Your task to perform on an android device: Open Google Chrome and open the bookmarks view Image 0: 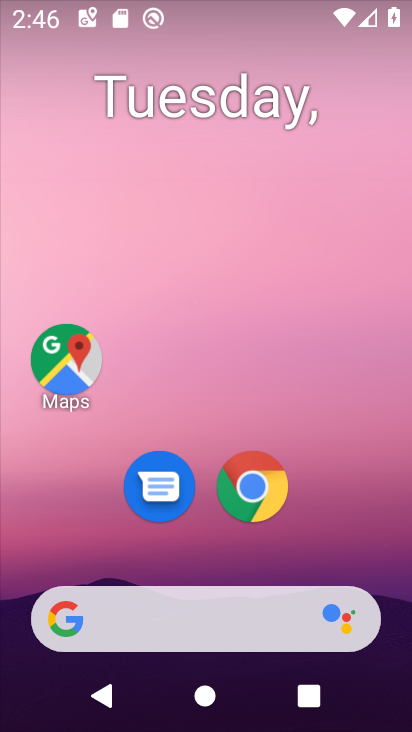
Step 0: press home button
Your task to perform on an android device: Open Google Chrome and open the bookmarks view Image 1: 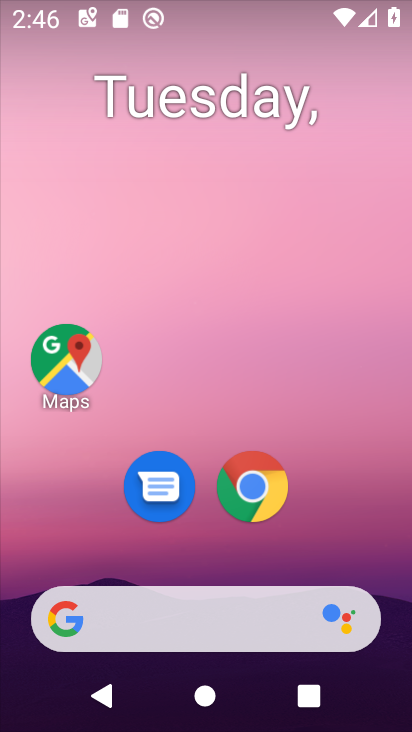
Step 1: drag from (209, 565) to (205, 109)
Your task to perform on an android device: Open Google Chrome and open the bookmarks view Image 2: 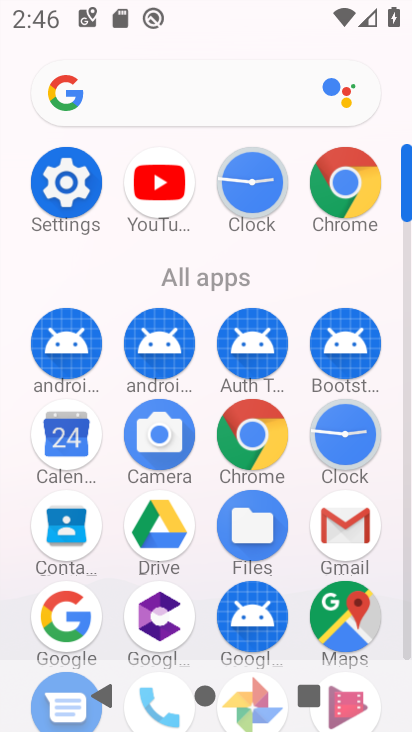
Step 2: click (343, 178)
Your task to perform on an android device: Open Google Chrome and open the bookmarks view Image 3: 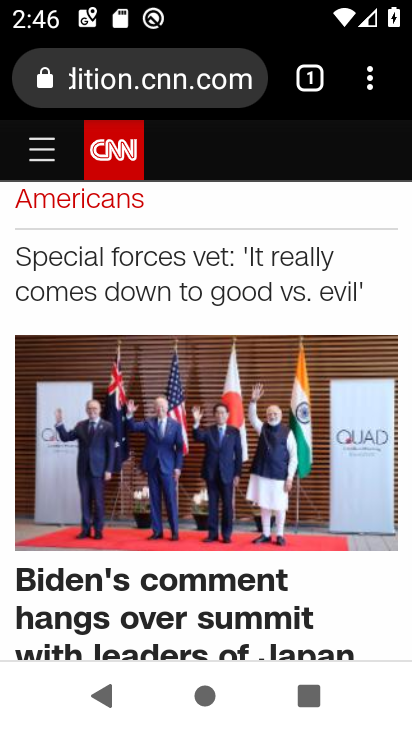
Step 3: click (380, 75)
Your task to perform on an android device: Open Google Chrome and open the bookmarks view Image 4: 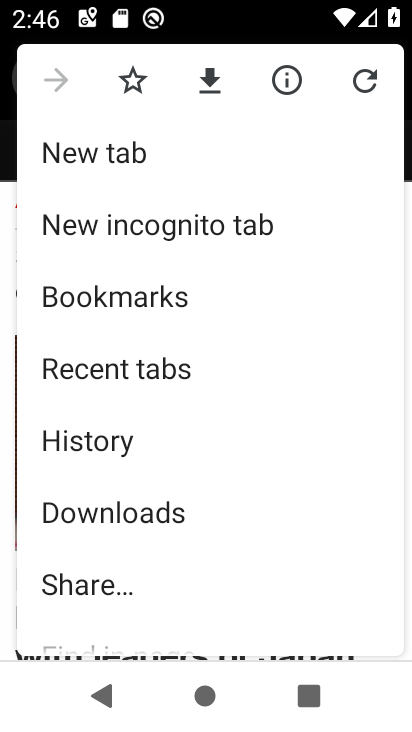
Step 4: click (199, 293)
Your task to perform on an android device: Open Google Chrome and open the bookmarks view Image 5: 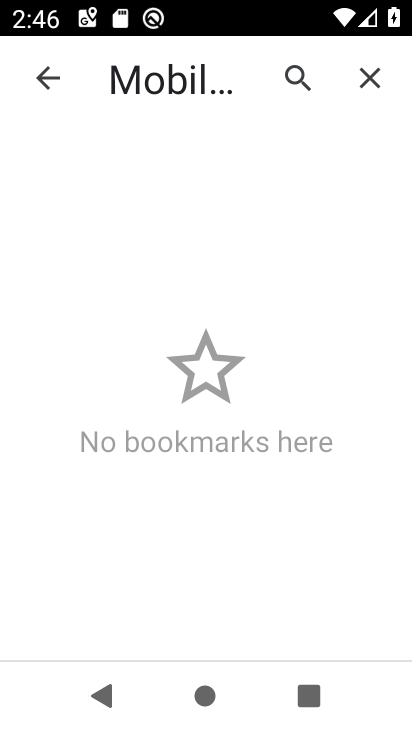
Step 5: task complete